Your task to perform on an android device: set an alarm Image 0: 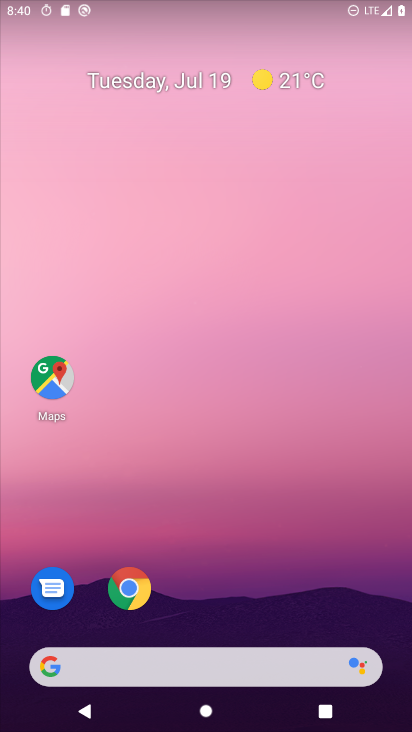
Step 0: drag from (239, 602) to (221, 160)
Your task to perform on an android device: set an alarm Image 1: 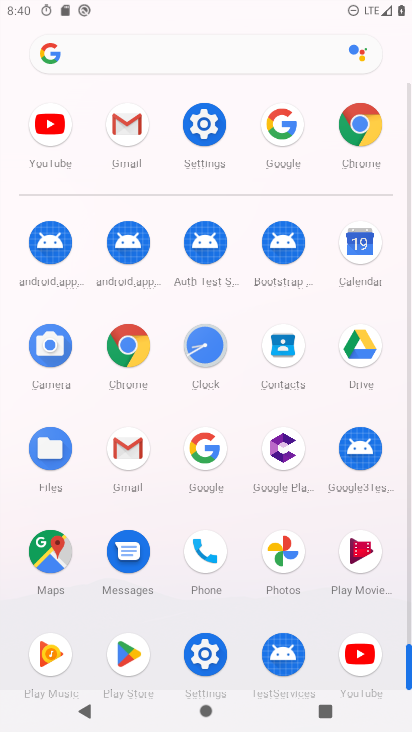
Step 1: click (205, 340)
Your task to perform on an android device: set an alarm Image 2: 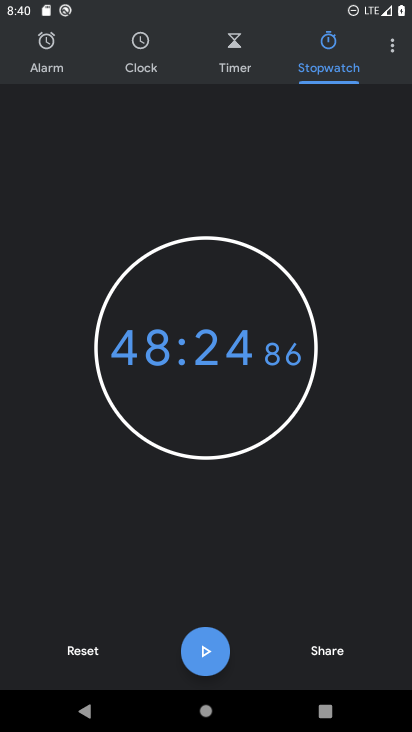
Step 2: click (34, 64)
Your task to perform on an android device: set an alarm Image 3: 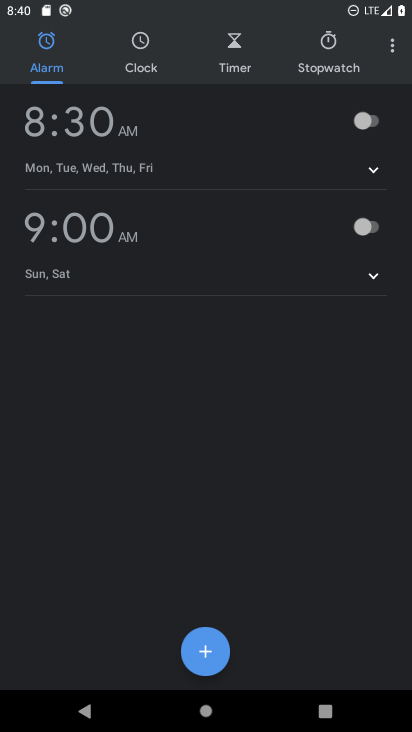
Step 3: click (354, 132)
Your task to perform on an android device: set an alarm Image 4: 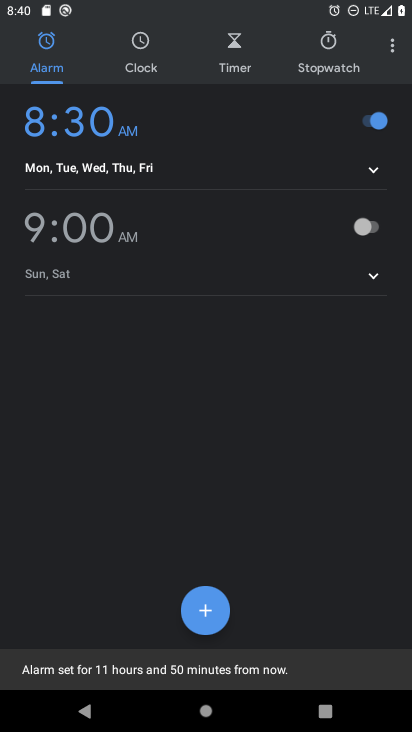
Step 4: task complete